Your task to perform on an android device: install app "PlayWell" Image 0: 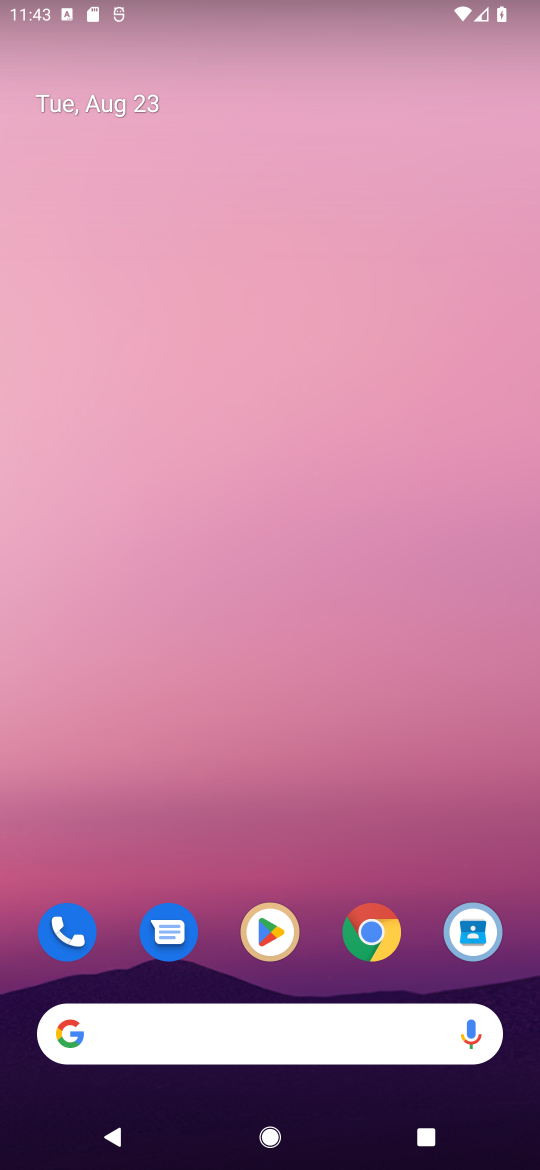
Step 0: click (264, 928)
Your task to perform on an android device: install app "PlayWell" Image 1: 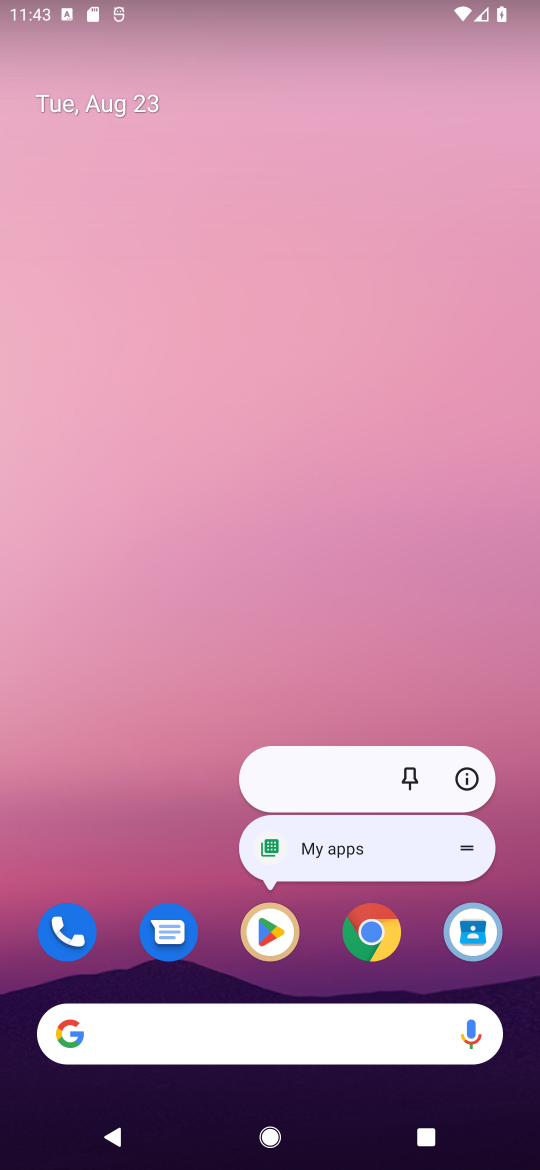
Step 1: click (268, 946)
Your task to perform on an android device: install app "PlayWell" Image 2: 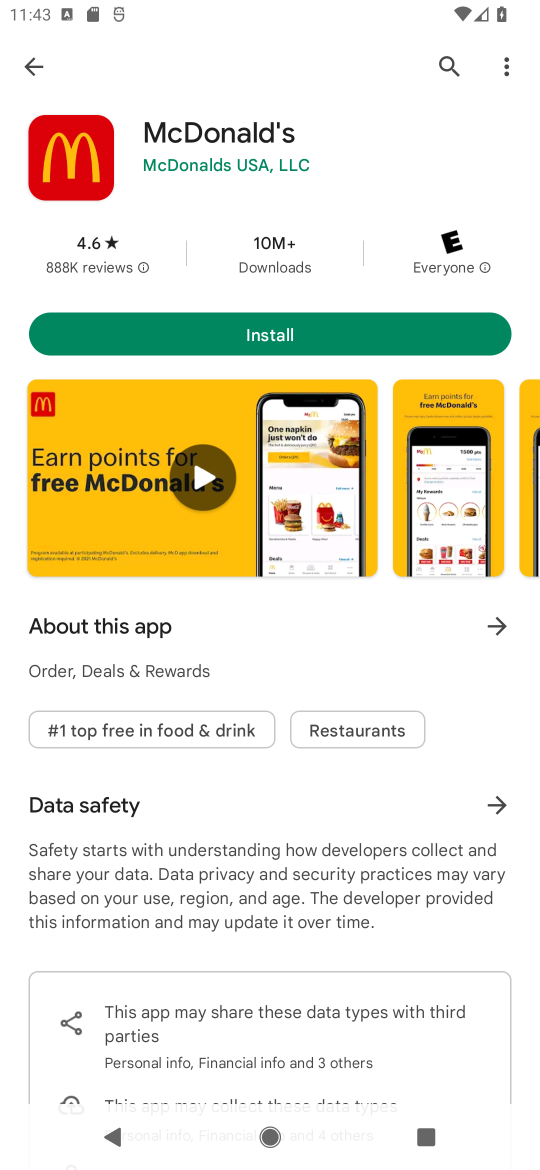
Step 2: click (442, 71)
Your task to perform on an android device: install app "PlayWell" Image 3: 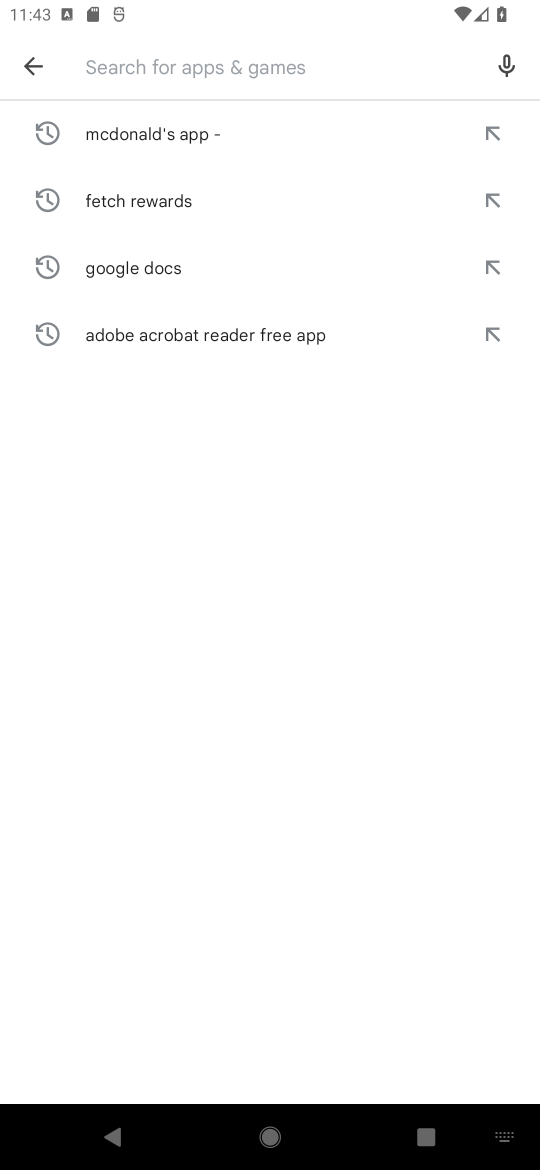
Step 3: click (125, 70)
Your task to perform on an android device: install app "PlayWell" Image 4: 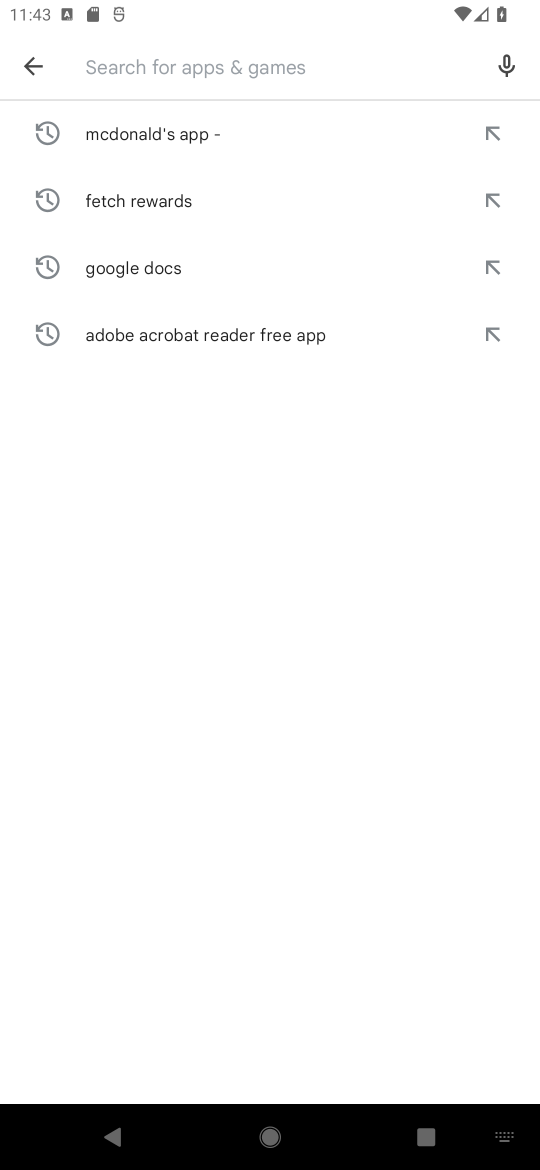
Step 4: type "PlayWell"
Your task to perform on an android device: install app "PlayWell" Image 5: 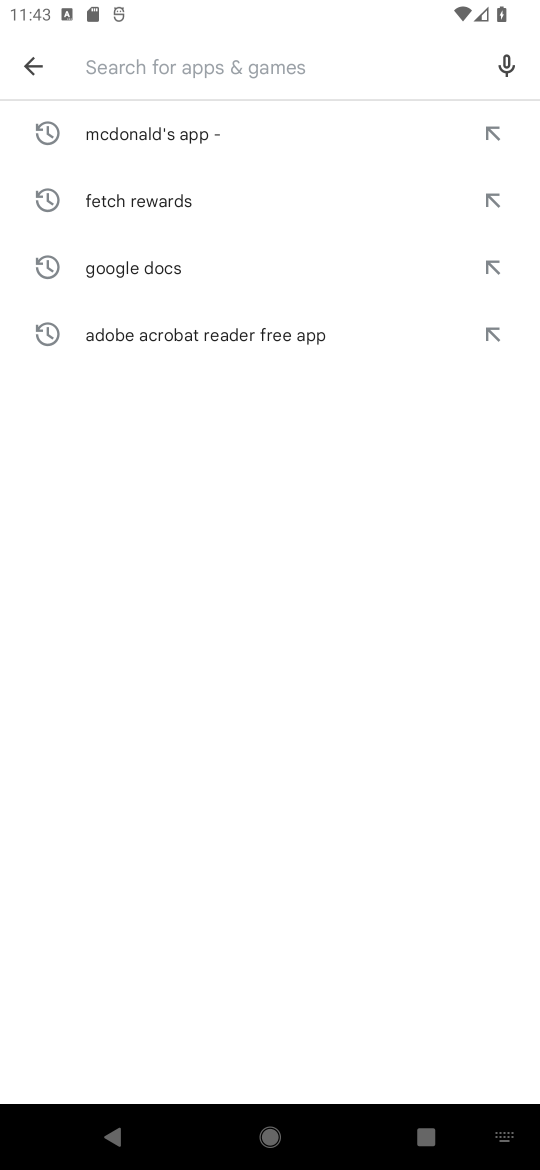
Step 5: click (400, 796)
Your task to perform on an android device: install app "PlayWell" Image 6: 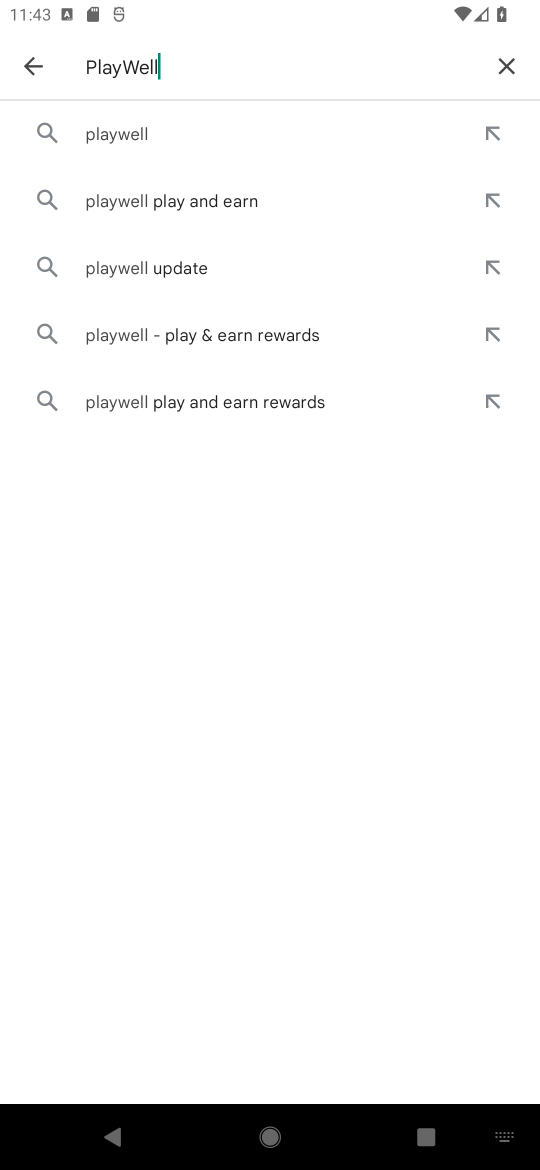
Step 6: click (151, 137)
Your task to perform on an android device: install app "PlayWell" Image 7: 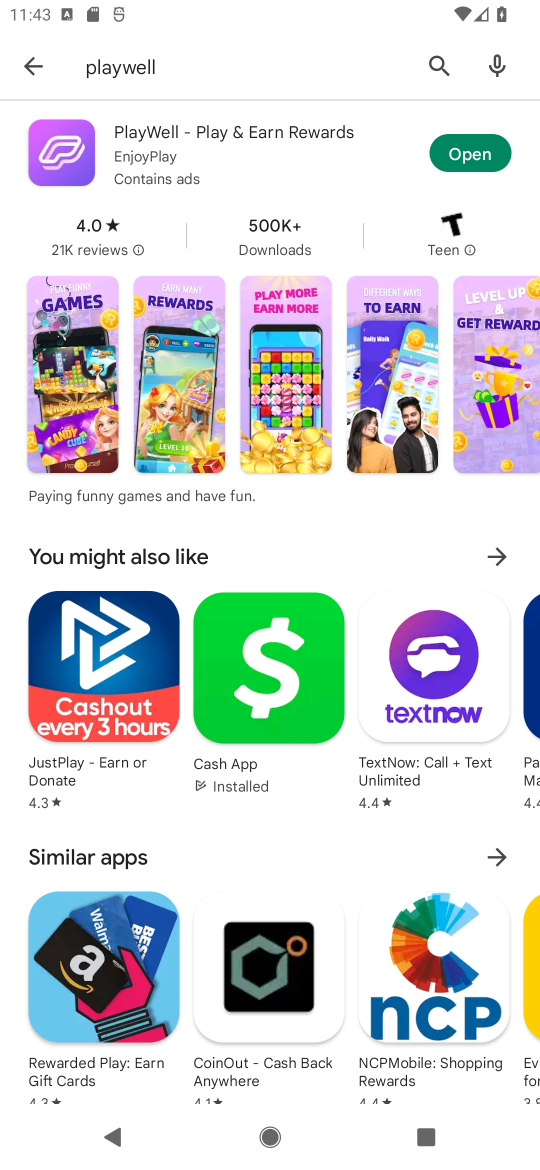
Step 7: click (239, 140)
Your task to perform on an android device: install app "PlayWell" Image 8: 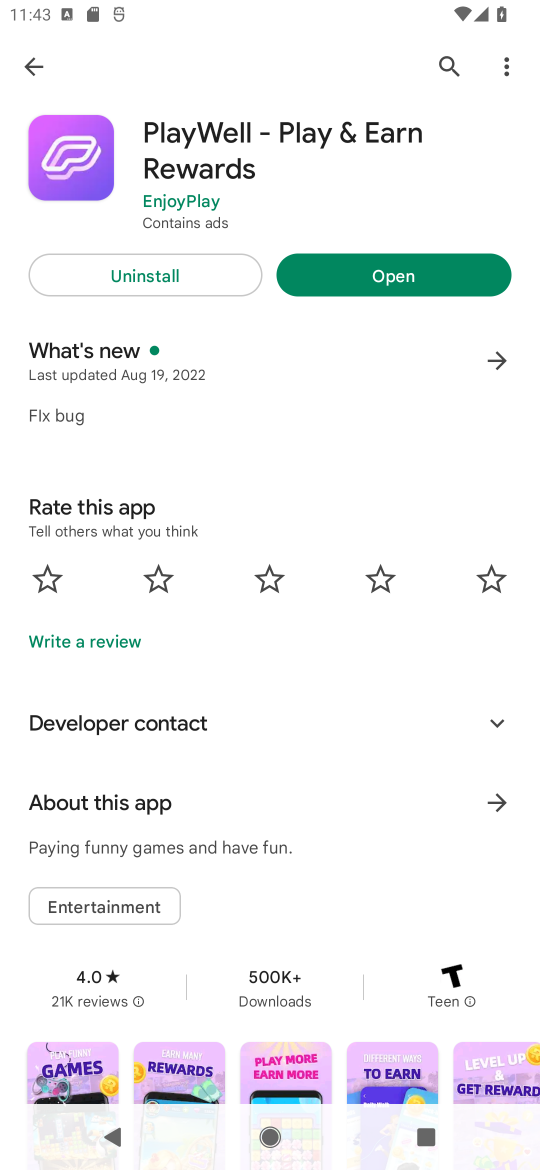
Step 8: task complete